Your task to perform on an android device: Open maps Image 0: 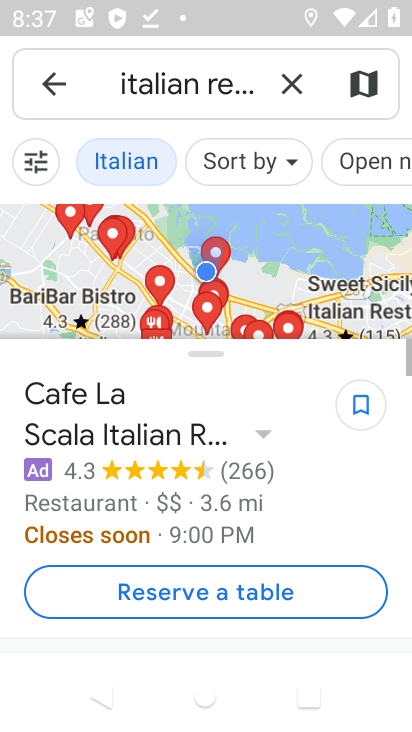
Step 0: click (253, 710)
Your task to perform on an android device: Open maps Image 1: 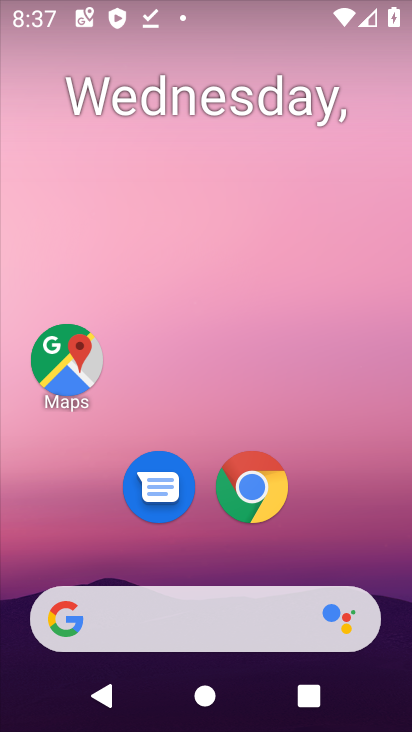
Step 1: drag from (256, 716) to (256, 102)
Your task to perform on an android device: Open maps Image 2: 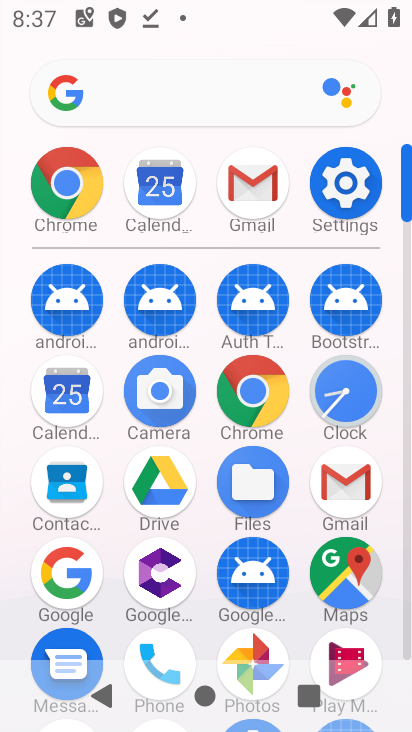
Step 2: click (339, 583)
Your task to perform on an android device: Open maps Image 3: 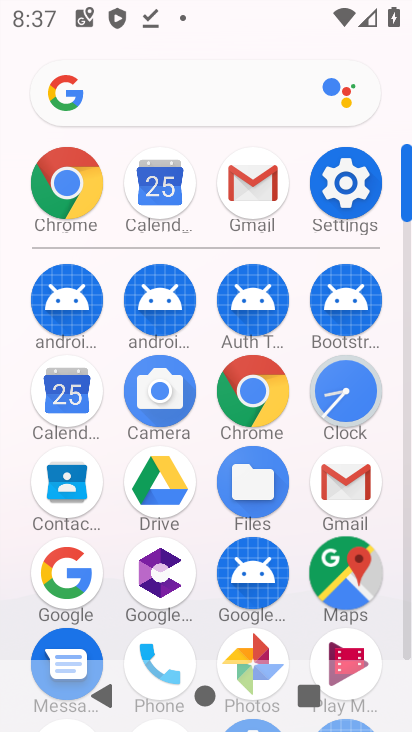
Step 3: click (339, 583)
Your task to perform on an android device: Open maps Image 4: 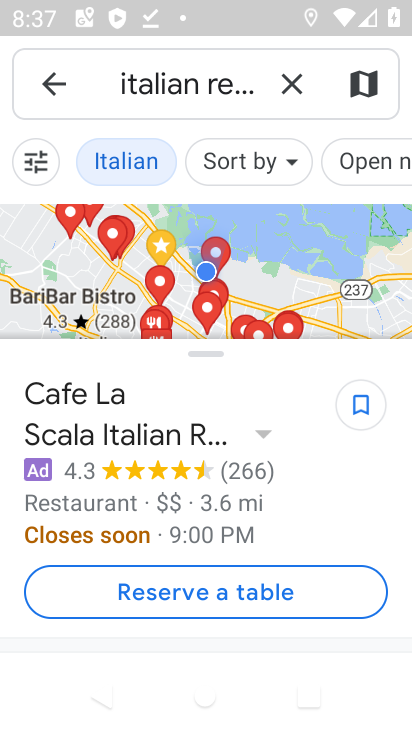
Step 4: task complete